Your task to perform on an android device: turn on data saver in the chrome app Image 0: 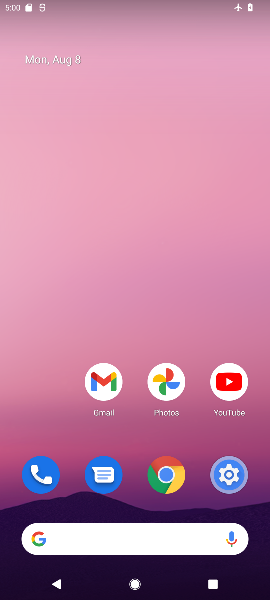
Step 0: press home button
Your task to perform on an android device: turn on data saver in the chrome app Image 1: 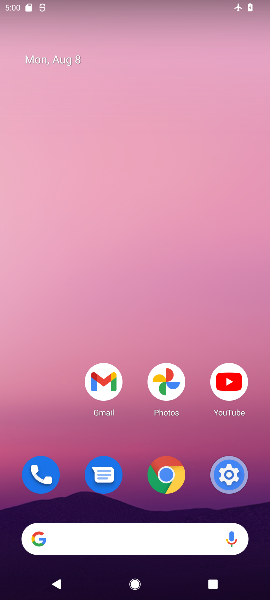
Step 1: drag from (63, 426) to (70, 229)
Your task to perform on an android device: turn on data saver in the chrome app Image 2: 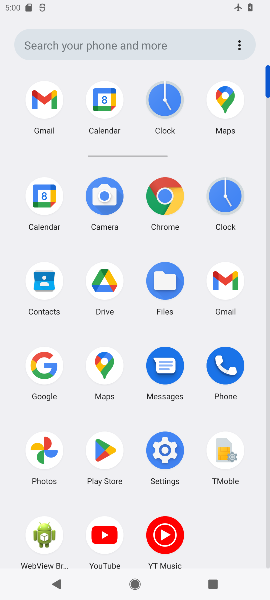
Step 2: click (168, 194)
Your task to perform on an android device: turn on data saver in the chrome app Image 3: 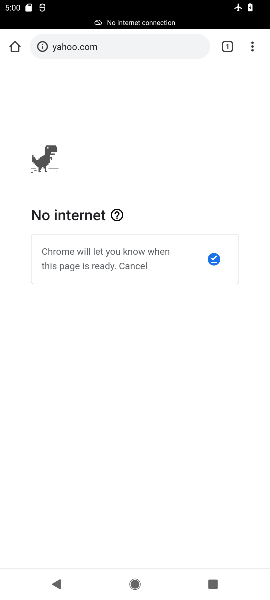
Step 3: click (252, 47)
Your task to perform on an android device: turn on data saver in the chrome app Image 4: 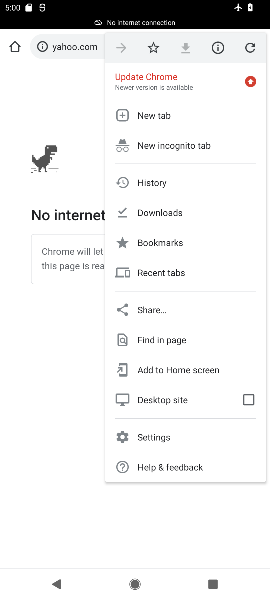
Step 4: click (170, 435)
Your task to perform on an android device: turn on data saver in the chrome app Image 5: 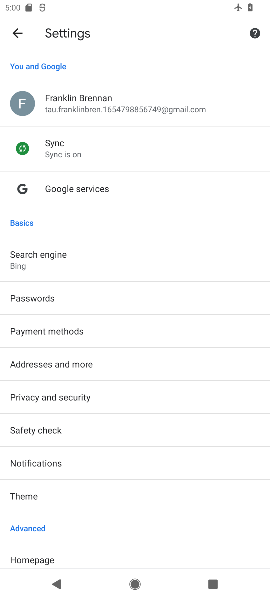
Step 5: drag from (219, 492) to (220, 400)
Your task to perform on an android device: turn on data saver in the chrome app Image 6: 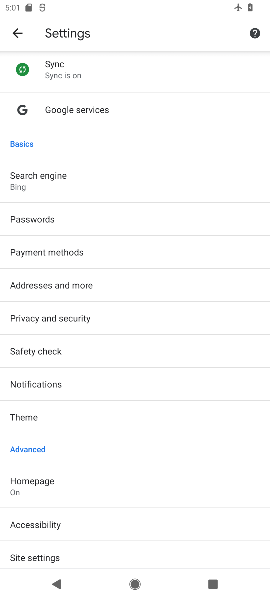
Step 6: drag from (199, 452) to (175, 412)
Your task to perform on an android device: turn on data saver in the chrome app Image 7: 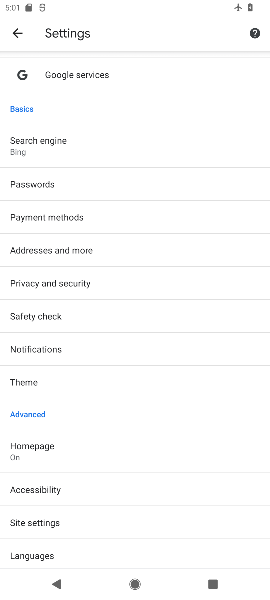
Step 7: drag from (167, 494) to (167, 412)
Your task to perform on an android device: turn on data saver in the chrome app Image 8: 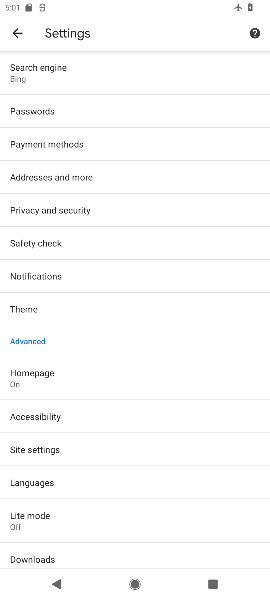
Step 8: click (163, 507)
Your task to perform on an android device: turn on data saver in the chrome app Image 9: 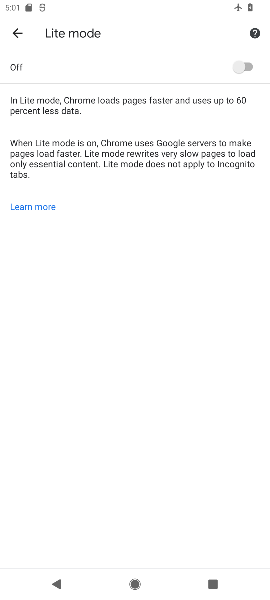
Step 9: click (242, 66)
Your task to perform on an android device: turn on data saver in the chrome app Image 10: 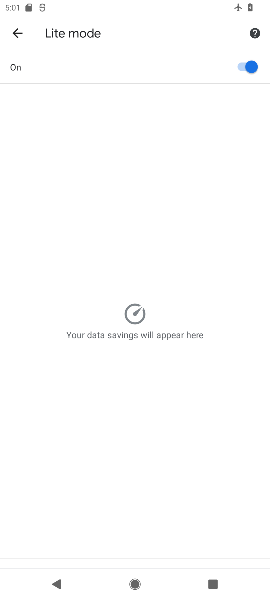
Step 10: task complete